Your task to perform on an android device: uninstall "Instagram" Image 0: 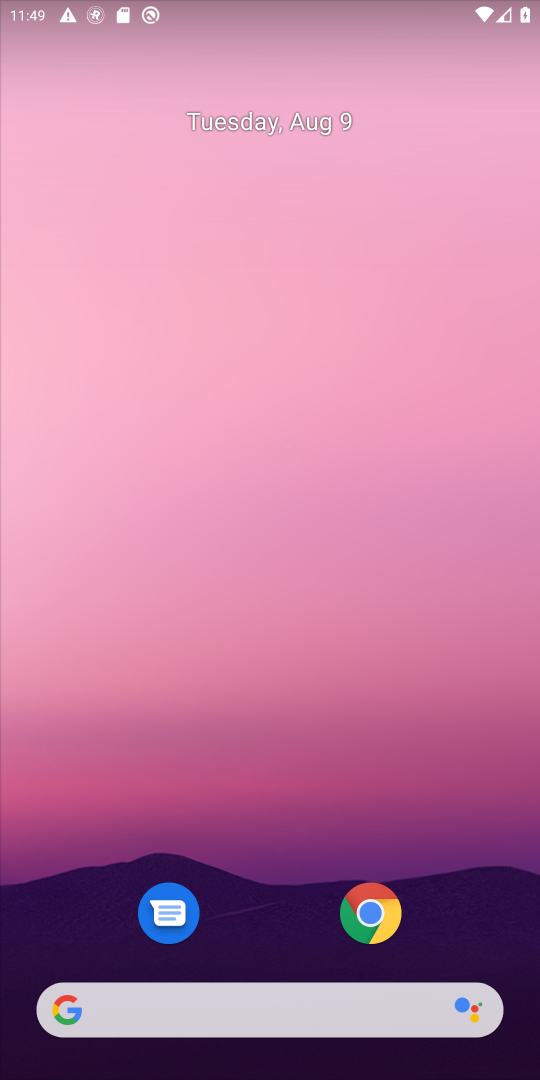
Step 0: drag from (288, 929) to (328, 219)
Your task to perform on an android device: uninstall "Instagram" Image 1: 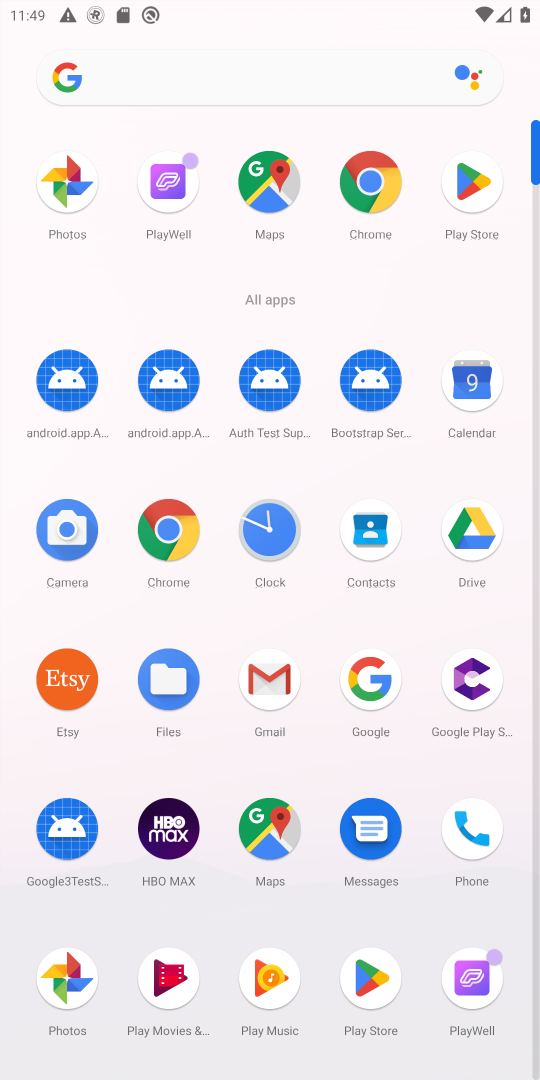
Step 1: click (475, 171)
Your task to perform on an android device: uninstall "Instagram" Image 2: 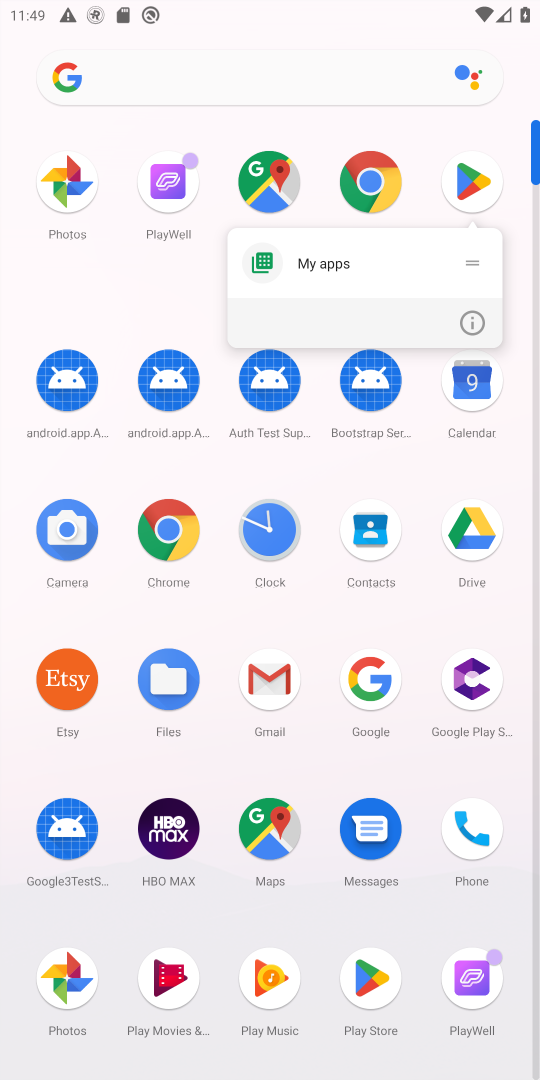
Step 2: click (475, 171)
Your task to perform on an android device: uninstall "Instagram" Image 3: 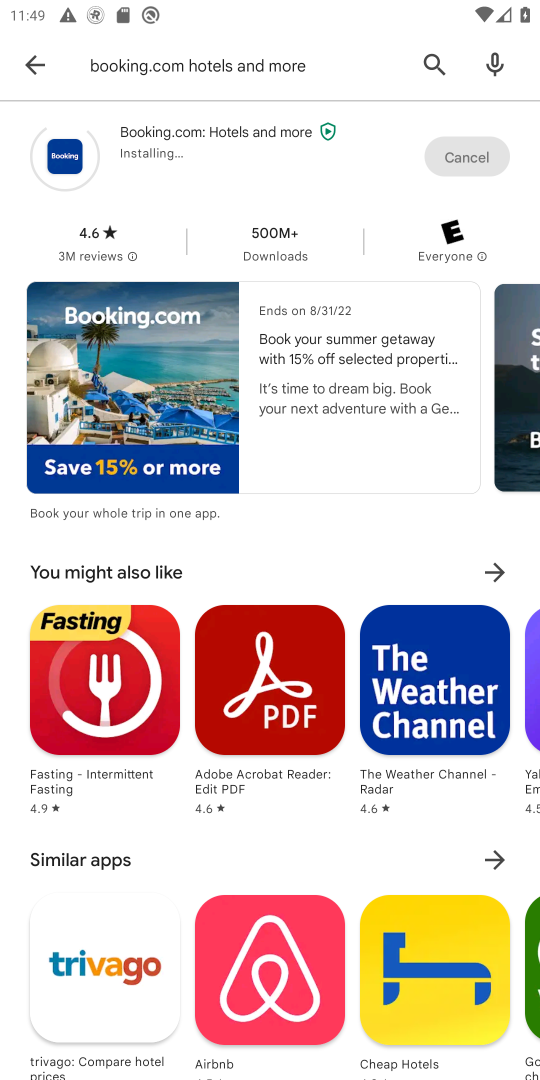
Step 3: click (32, 66)
Your task to perform on an android device: uninstall "Instagram" Image 4: 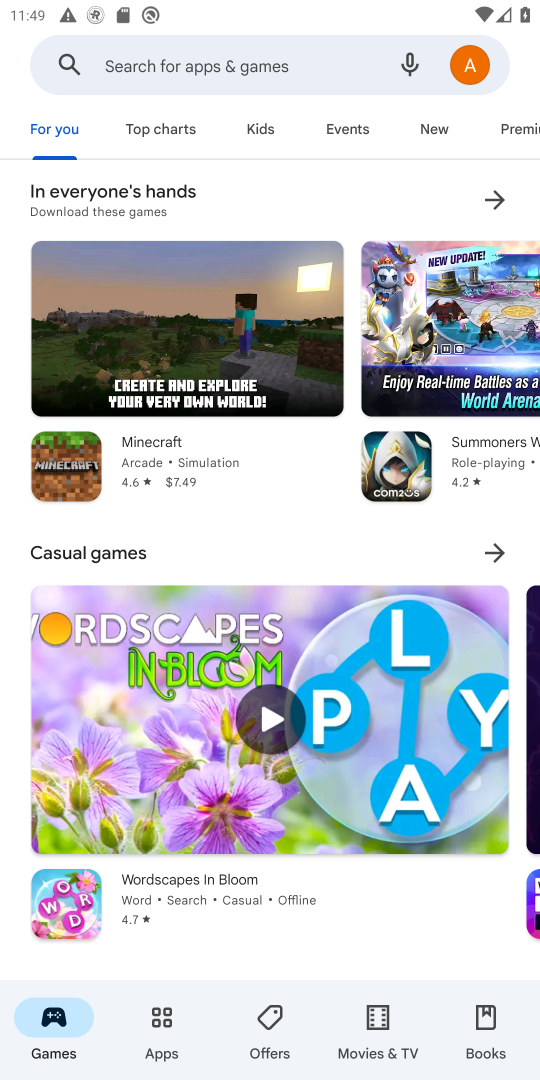
Step 4: click (194, 51)
Your task to perform on an android device: uninstall "Instagram" Image 5: 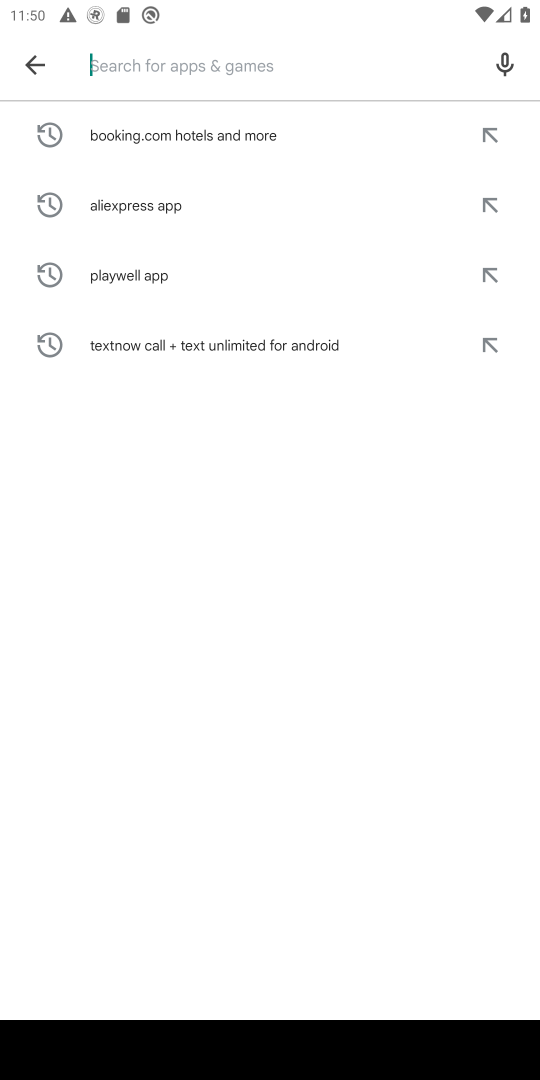
Step 5: type "instagram"
Your task to perform on an android device: uninstall "Instagram" Image 6: 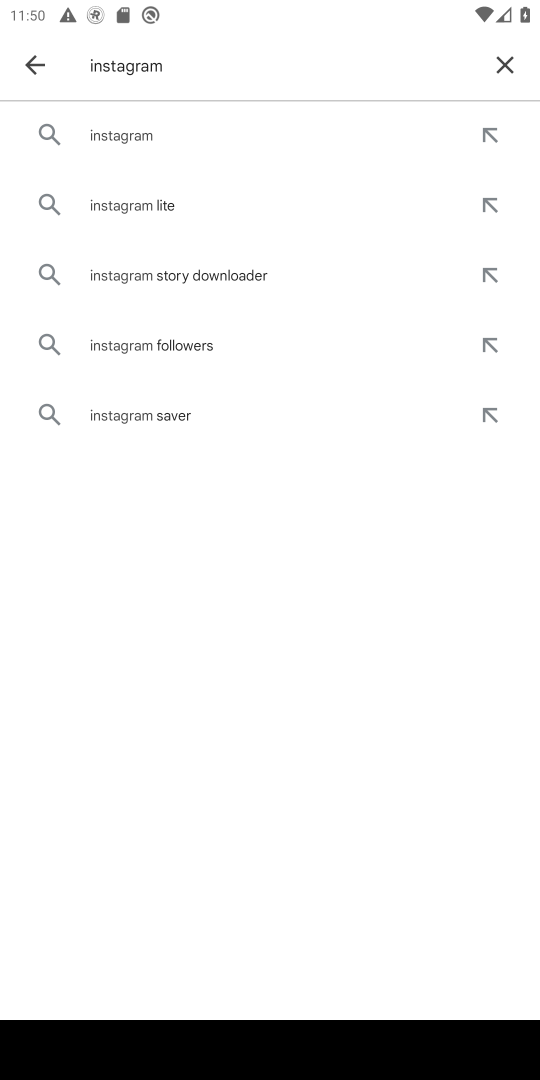
Step 6: click (145, 146)
Your task to perform on an android device: uninstall "Instagram" Image 7: 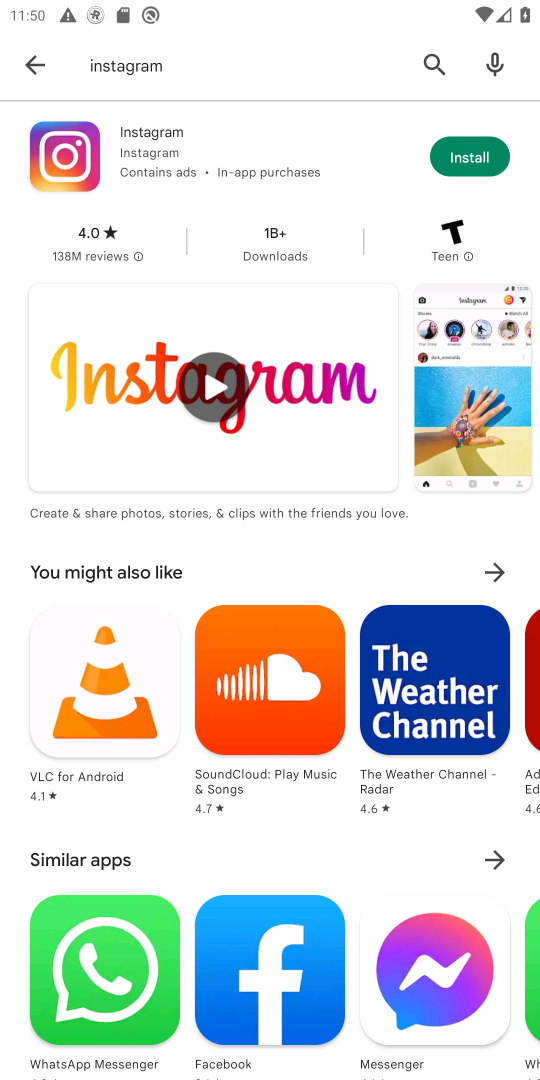
Step 7: task complete